Your task to perform on an android device: Do I have any events this weekend? Image 0: 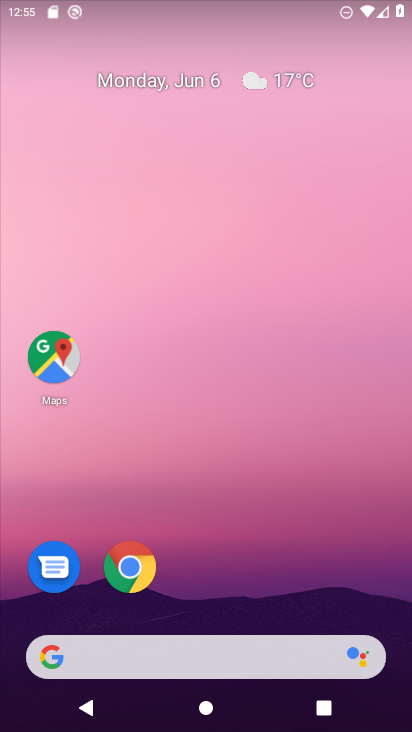
Step 0: drag from (256, 727) to (243, 41)
Your task to perform on an android device: Do I have any events this weekend? Image 1: 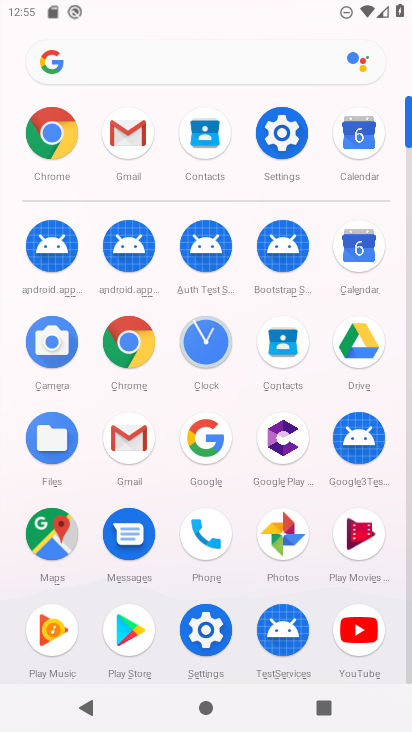
Step 1: click (352, 247)
Your task to perform on an android device: Do I have any events this weekend? Image 2: 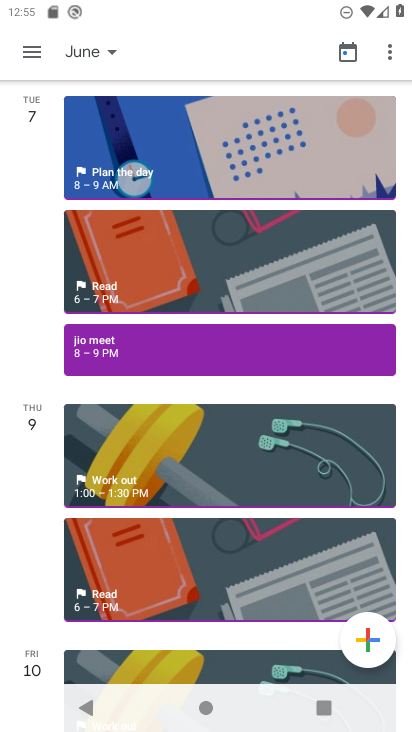
Step 2: click (115, 54)
Your task to perform on an android device: Do I have any events this weekend? Image 3: 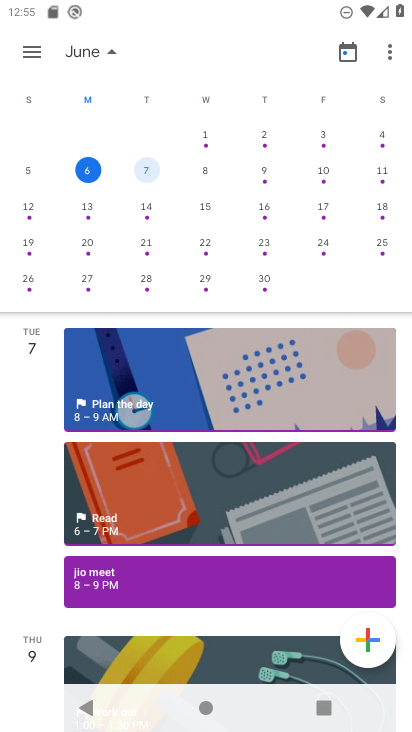
Step 3: click (387, 172)
Your task to perform on an android device: Do I have any events this weekend? Image 4: 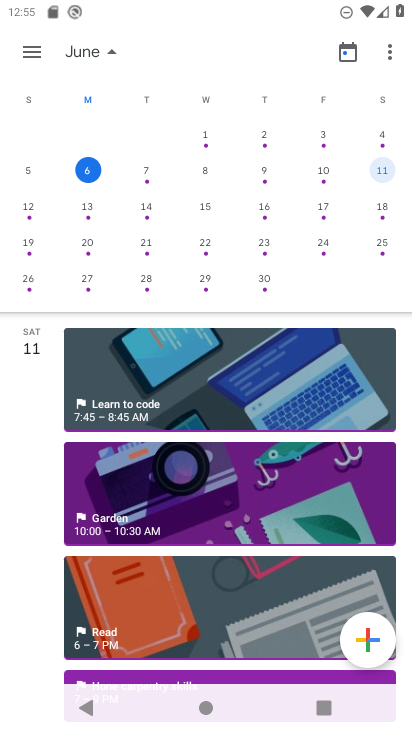
Step 4: click (387, 172)
Your task to perform on an android device: Do I have any events this weekend? Image 5: 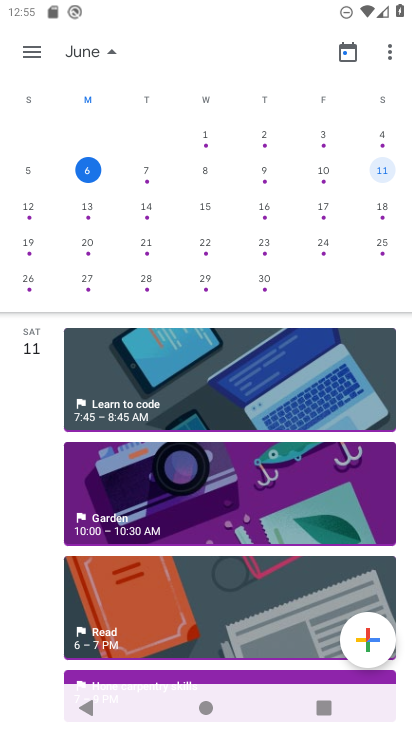
Step 5: click (387, 172)
Your task to perform on an android device: Do I have any events this weekend? Image 6: 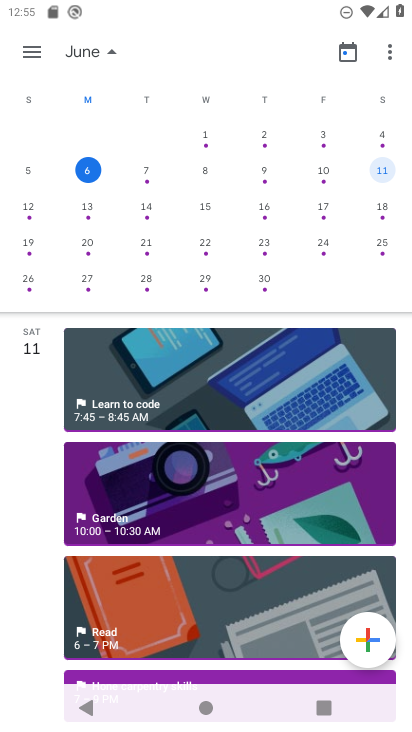
Step 6: click (109, 47)
Your task to perform on an android device: Do I have any events this weekend? Image 7: 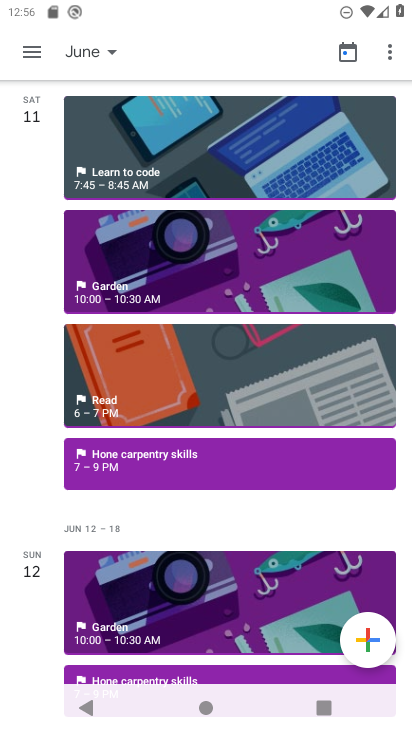
Step 7: task complete